Your task to perform on an android device: Go to wifi settings Image 0: 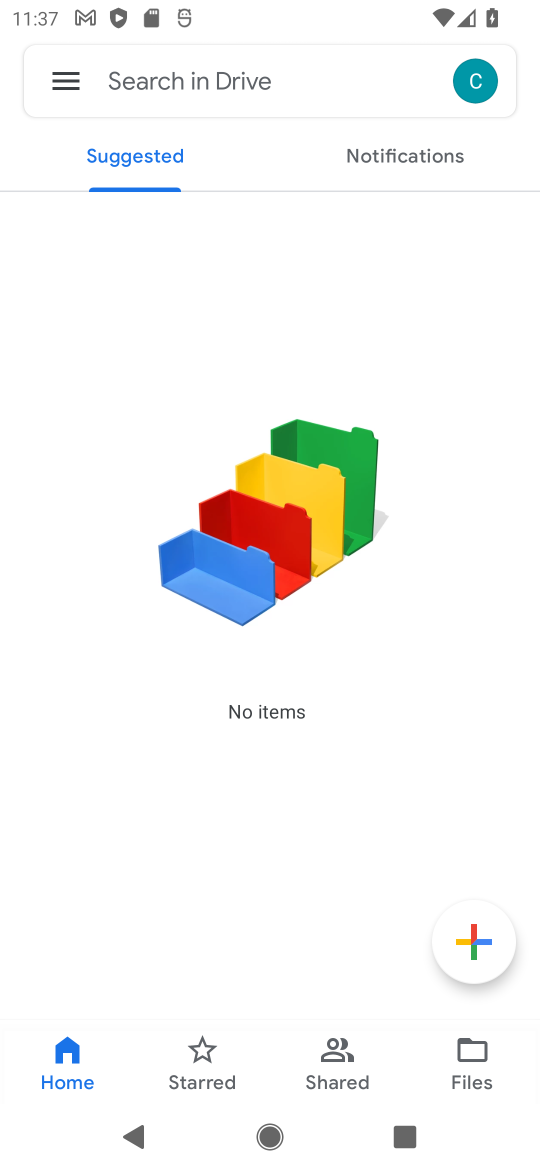
Step 0: press back button
Your task to perform on an android device: Go to wifi settings Image 1: 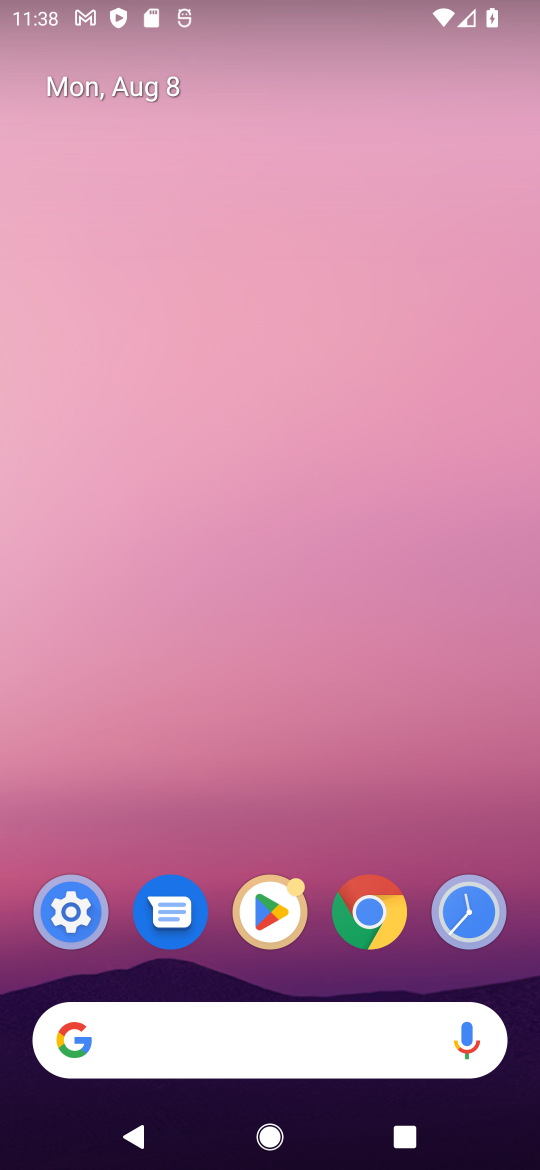
Step 1: drag from (180, 17) to (190, 806)
Your task to perform on an android device: Go to wifi settings Image 2: 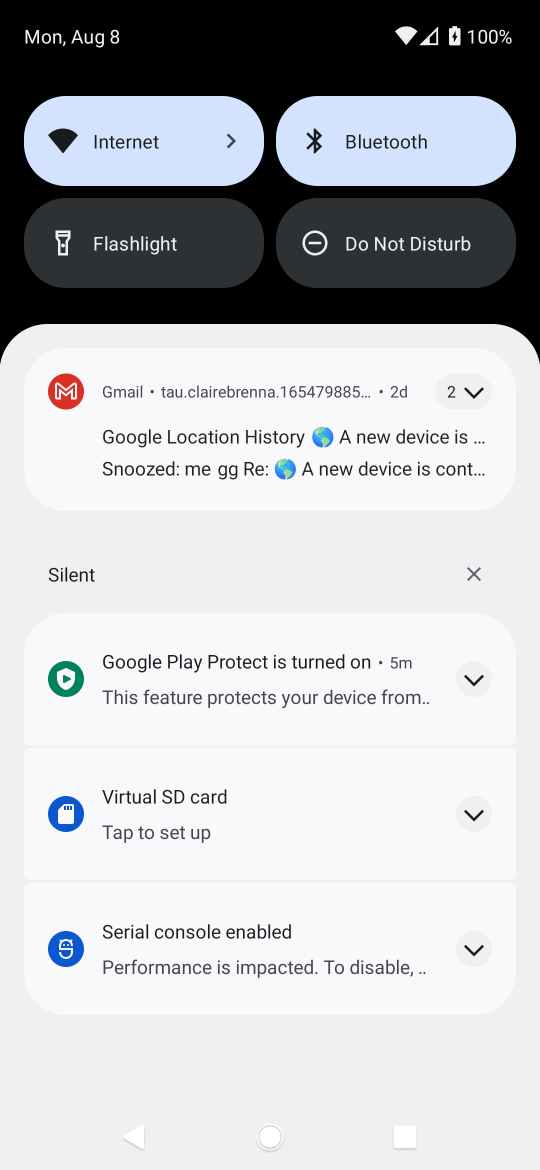
Step 2: click (117, 140)
Your task to perform on an android device: Go to wifi settings Image 3: 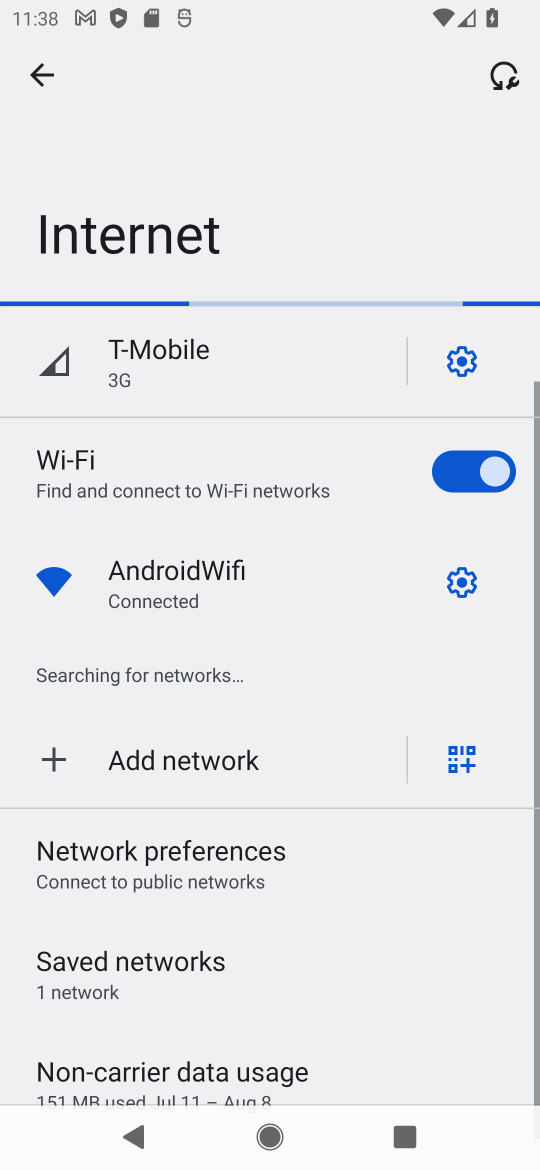
Step 3: task complete